Your task to perform on an android device: change timer sound Image 0: 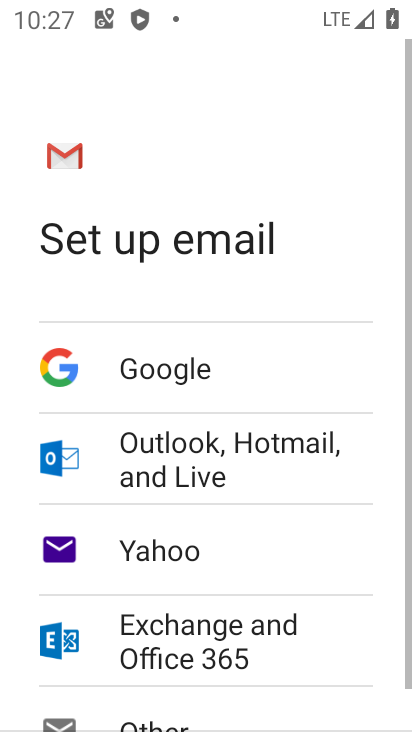
Step 0: press home button
Your task to perform on an android device: change timer sound Image 1: 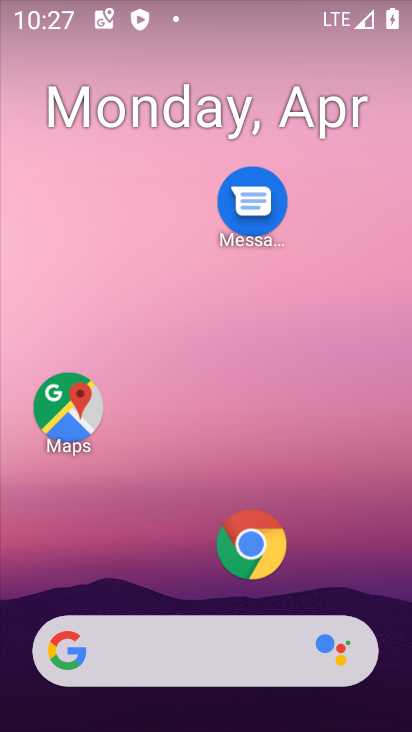
Step 1: drag from (207, 594) to (218, 3)
Your task to perform on an android device: change timer sound Image 2: 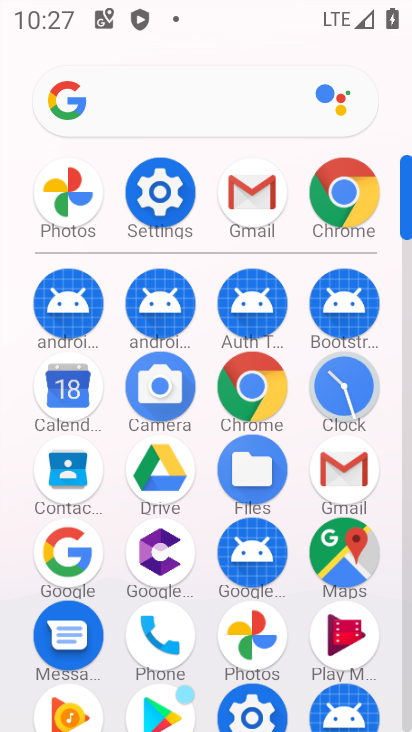
Step 2: click (343, 381)
Your task to perform on an android device: change timer sound Image 3: 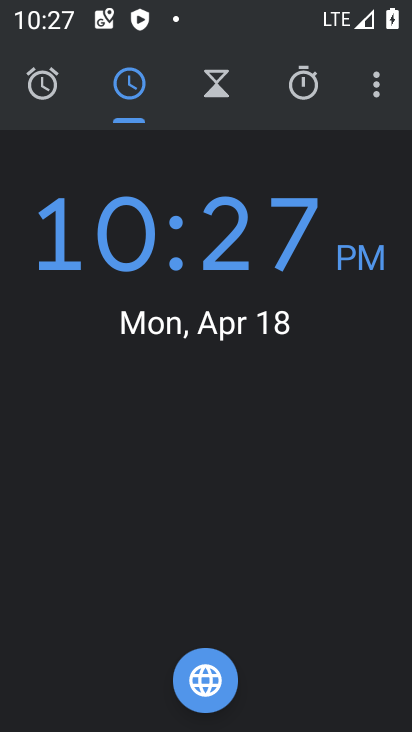
Step 3: click (373, 80)
Your task to perform on an android device: change timer sound Image 4: 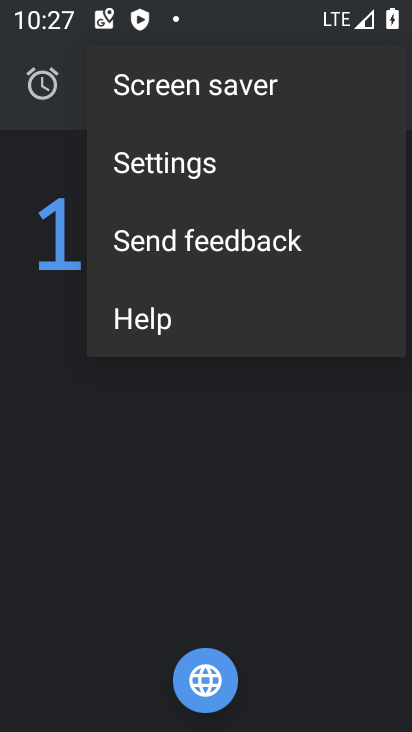
Step 4: click (228, 160)
Your task to perform on an android device: change timer sound Image 5: 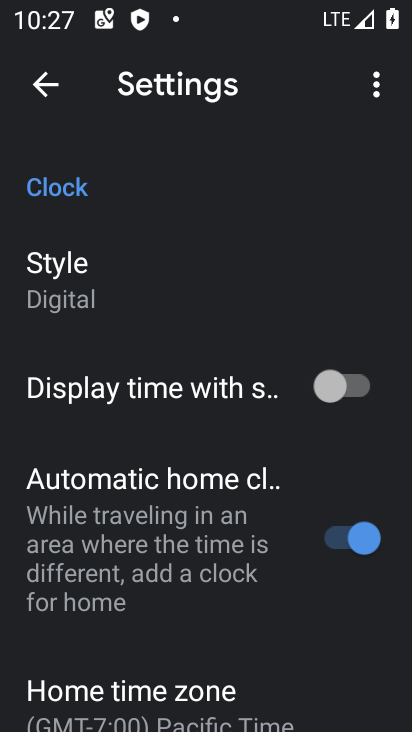
Step 5: drag from (213, 624) to (230, 132)
Your task to perform on an android device: change timer sound Image 6: 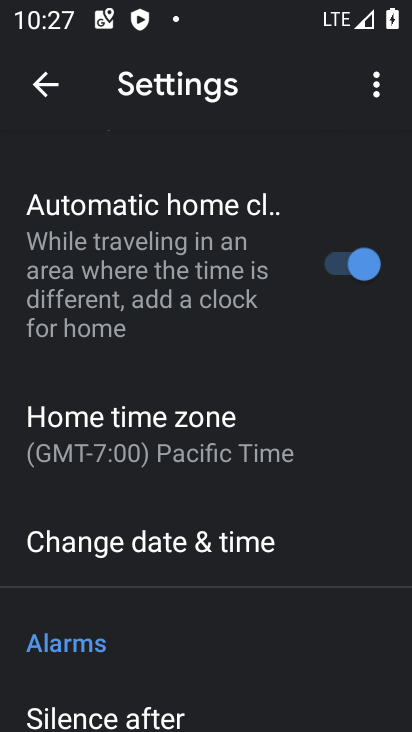
Step 6: drag from (190, 618) to (250, 97)
Your task to perform on an android device: change timer sound Image 7: 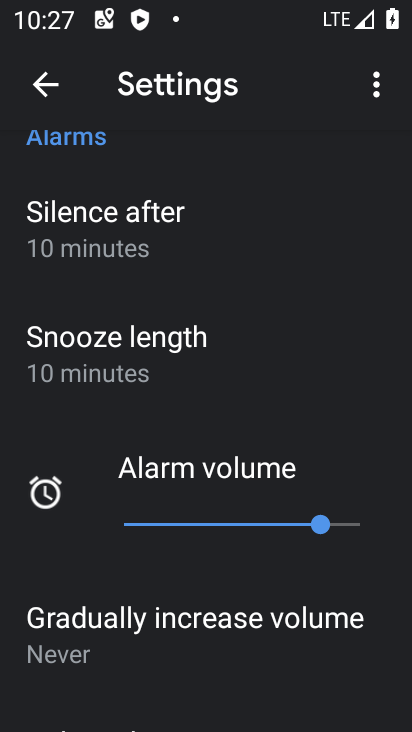
Step 7: drag from (146, 681) to (180, 112)
Your task to perform on an android device: change timer sound Image 8: 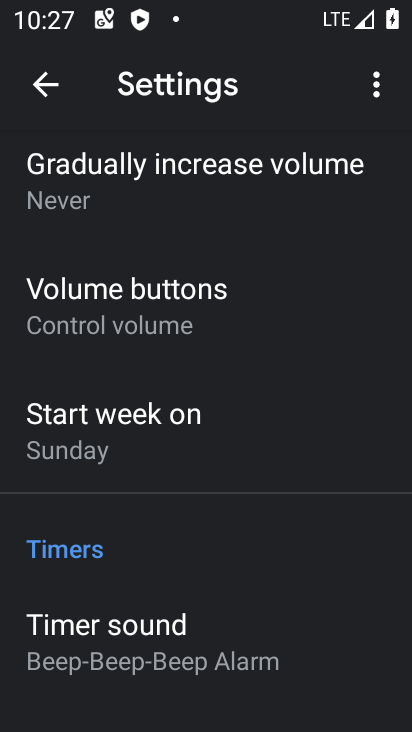
Step 8: click (154, 639)
Your task to perform on an android device: change timer sound Image 9: 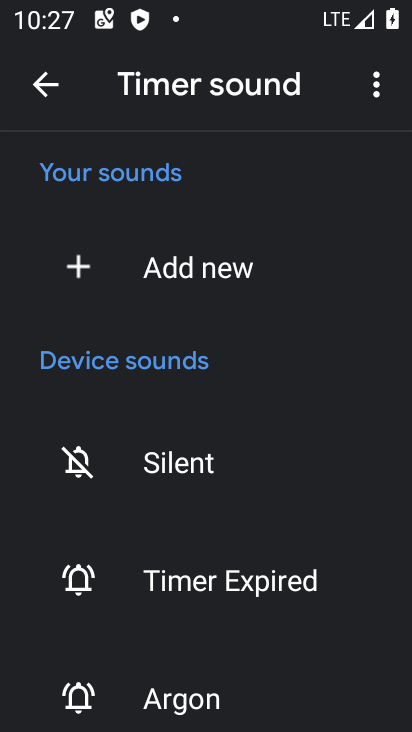
Step 9: click (205, 689)
Your task to perform on an android device: change timer sound Image 10: 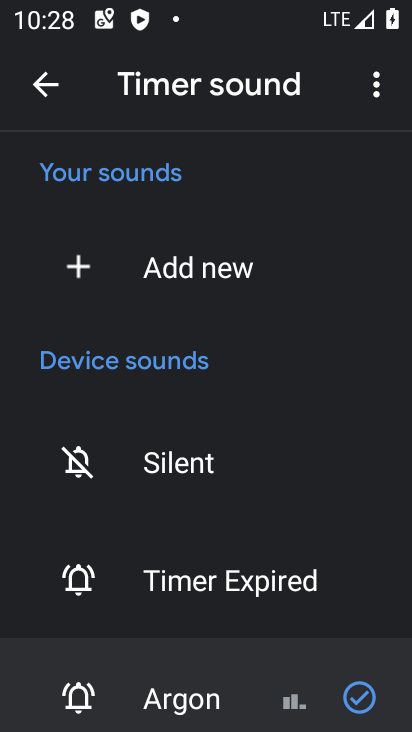
Step 10: task complete